Your task to perform on an android device: Open Google Maps Image 0: 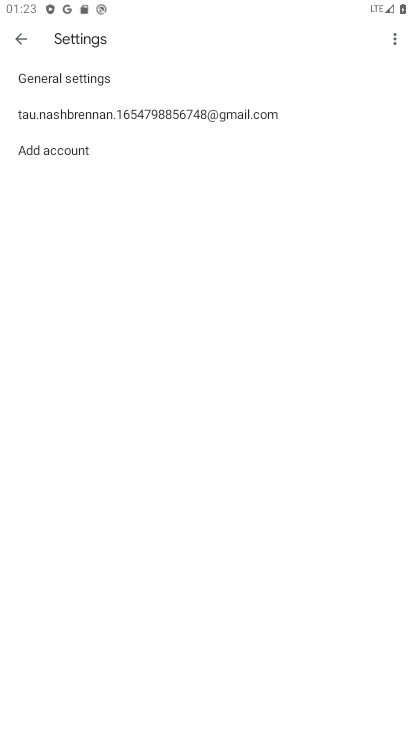
Step 0: press home button
Your task to perform on an android device: Open Google Maps Image 1: 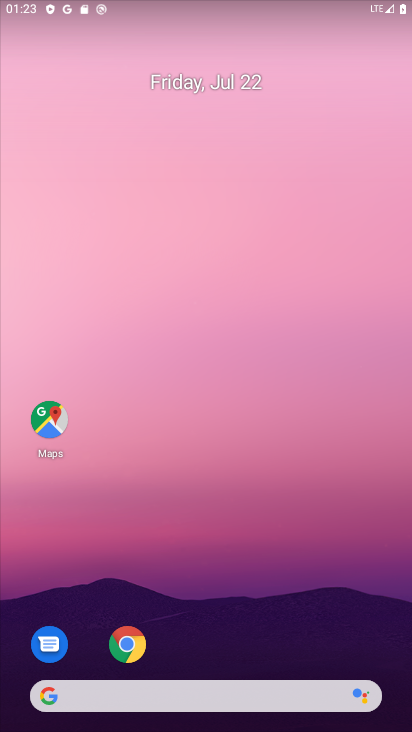
Step 1: click (34, 419)
Your task to perform on an android device: Open Google Maps Image 2: 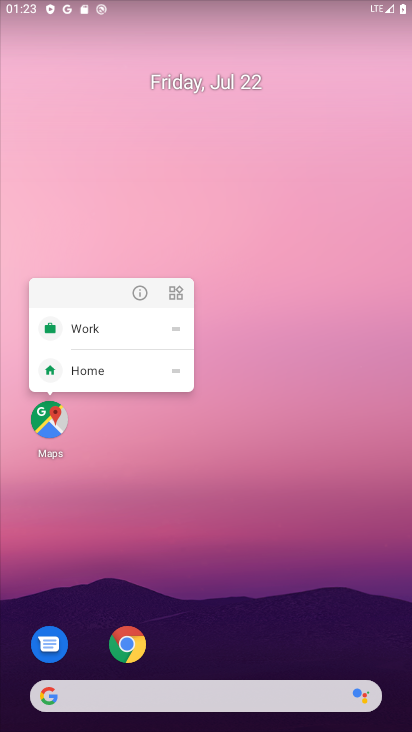
Step 2: click (31, 425)
Your task to perform on an android device: Open Google Maps Image 3: 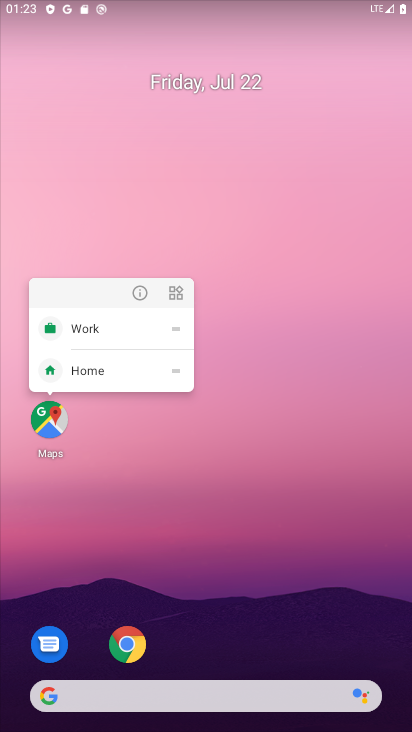
Step 3: click (31, 425)
Your task to perform on an android device: Open Google Maps Image 4: 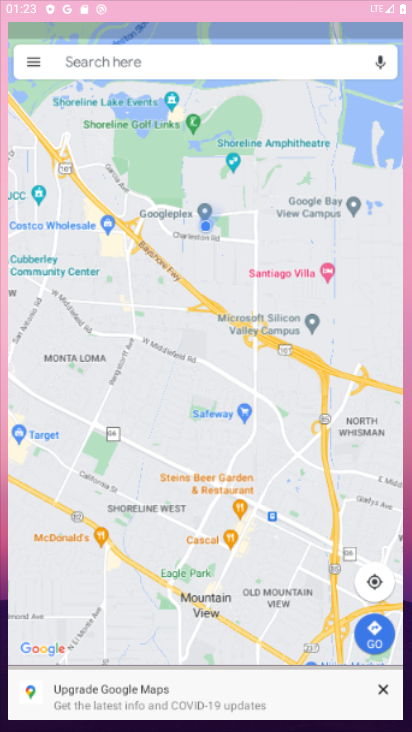
Step 4: click (31, 425)
Your task to perform on an android device: Open Google Maps Image 5: 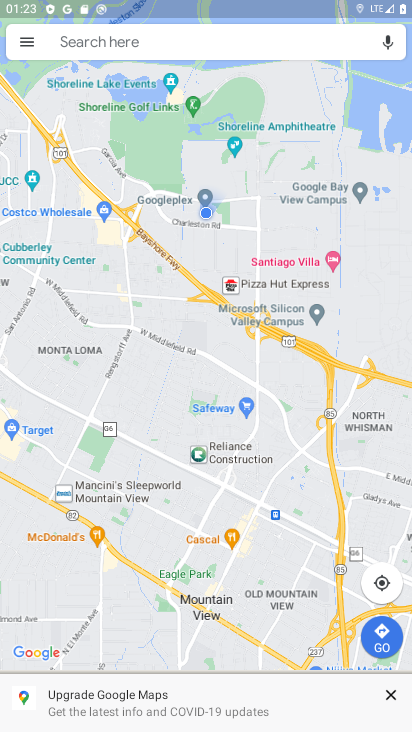
Step 5: task complete